Your task to perform on an android device: open app "Google Keep" Image 0: 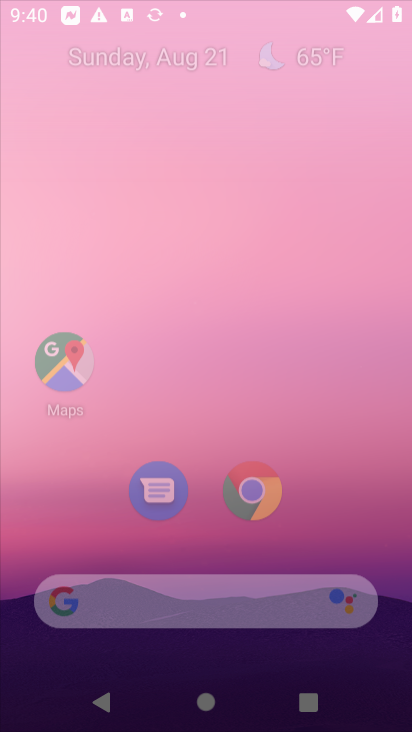
Step 0: click (200, 24)
Your task to perform on an android device: open app "Google Keep" Image 1: 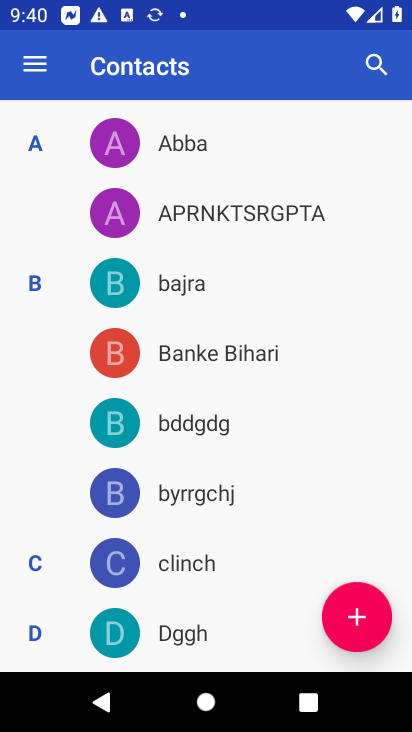
Step 1: press home button
Your task to perform on an android device: open app "Google Keep" Image 2: 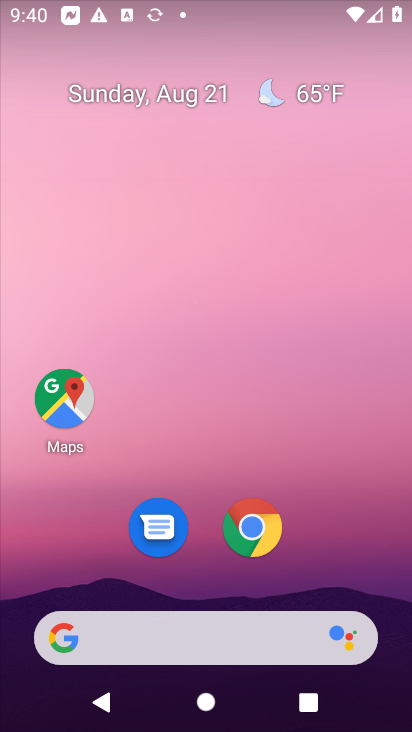
Step 2: drag from (195, 542) to (142, 0)
Your task to perform on an android device: open app "Google Keep" Image 3: 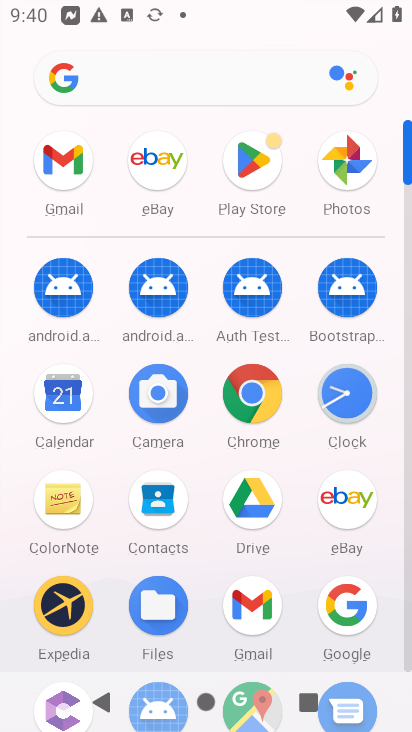
Step 3: click (256, 181)
Your task to perform on an android device: open app "Google Keep" Image 4: 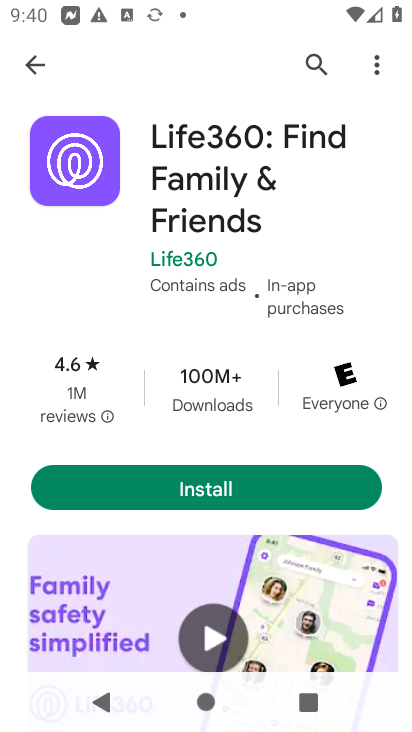
Step 4: click (39, 55)
Your task to perform on an android device: open app "Google Keep" Image 5: 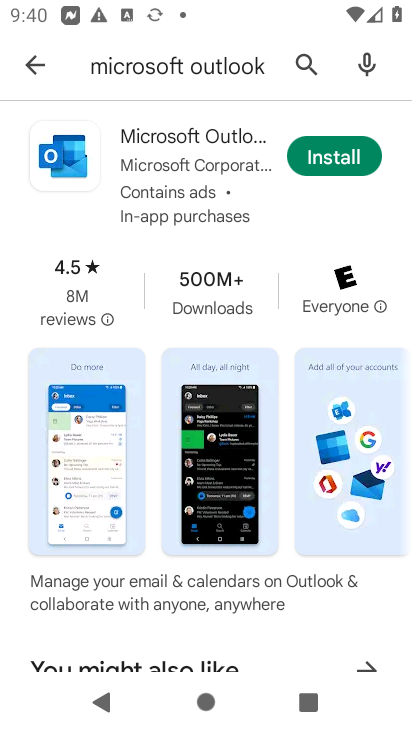
Step 5: click (175, 74)
Your task to perform on an android device: open app "Google Keep" Image 6: 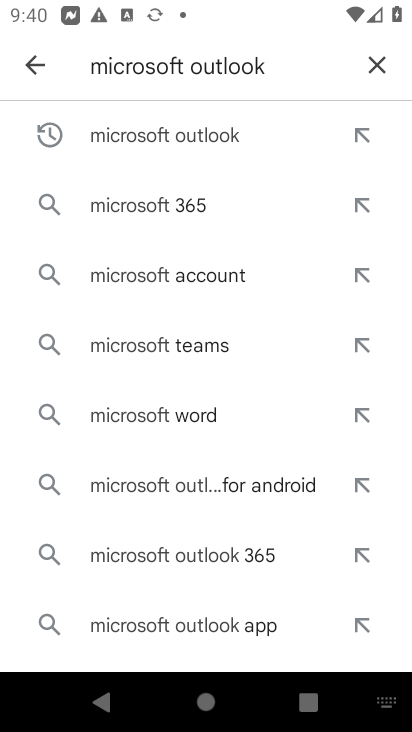
Step 6: click (370, 61)
Your task to perform on an android device: open app "Google Keep" Image 7: 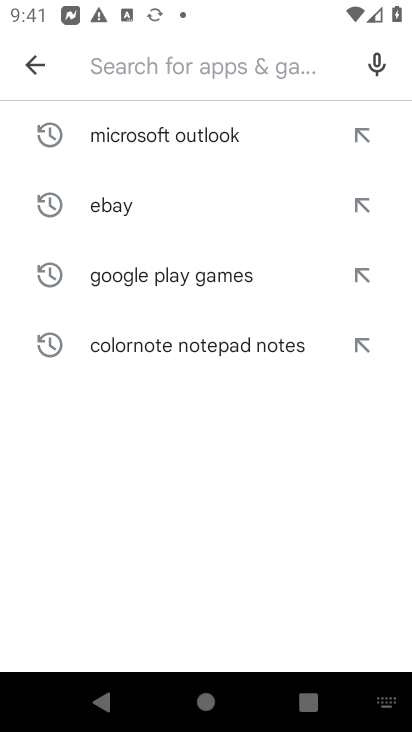
Step 7: type "Google Keep"
Your task to perform on an android device: open app "Google Keep" Image 8: 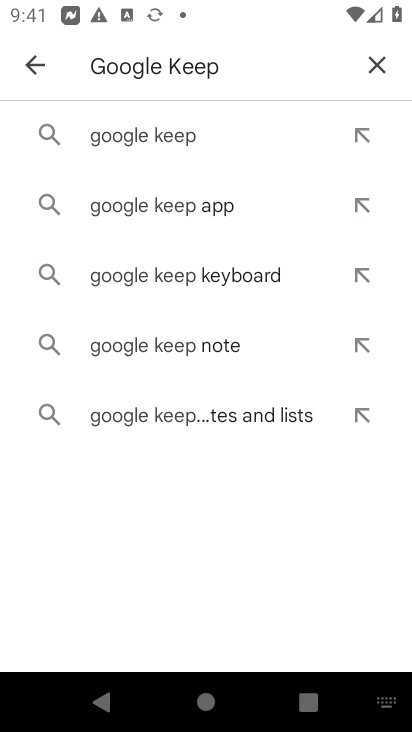
Step 8: click (155, 140)
Your task to perform on an android device: open app "Google Keep" Image 9: 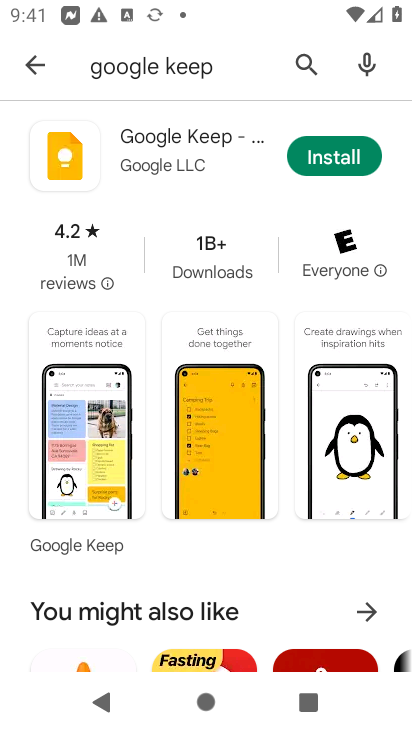
Step 9: task complete